Your task to perform on an android device: Go to display settings Image 0: 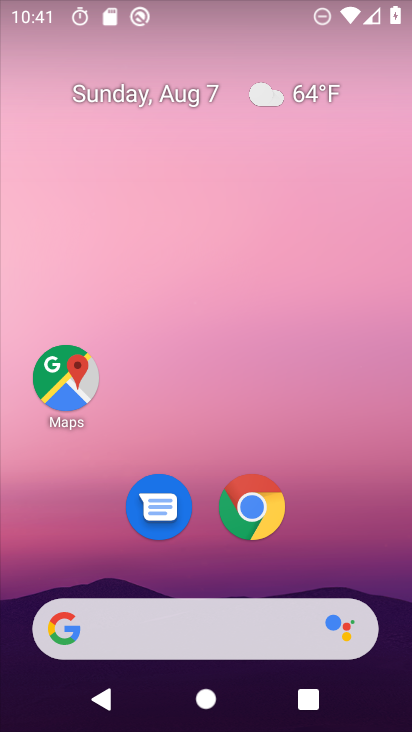
Step 0: drag from (344, 521) to (273, 147)
Your task to perform on an android device: Go to display settings Image 1: 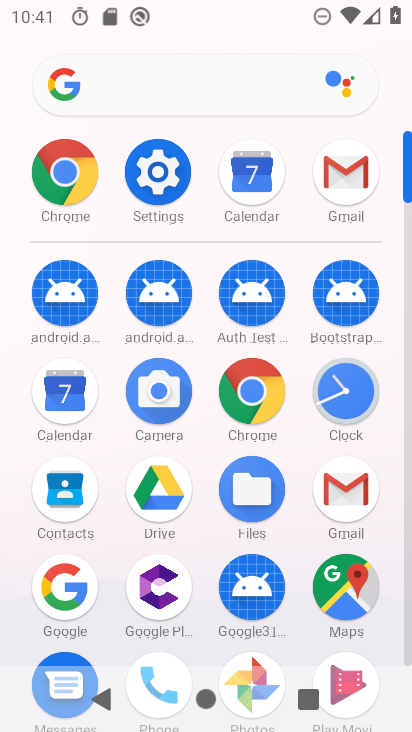
Step 1: click (148, 190)
Your task to perform on an android device: Go to display settings Image 2: 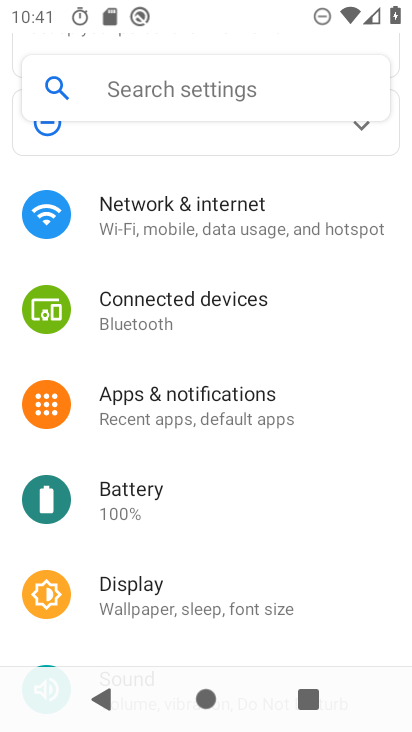
Step 2: click (141, 574)
Your task to perform on an android device: Go to display settings Image 3: 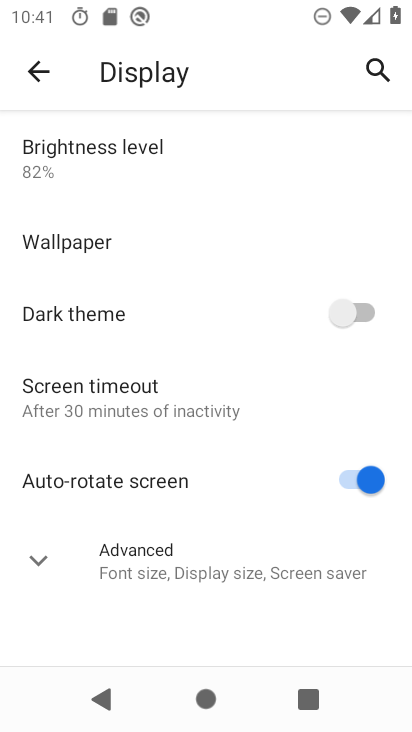
Step 3: task complete